Your task to perform on an android device: Clear all items from cart on costco.com. Search for acer predator on costco.com, select the first entry, add it to the cart, then select checkout. Image 0: 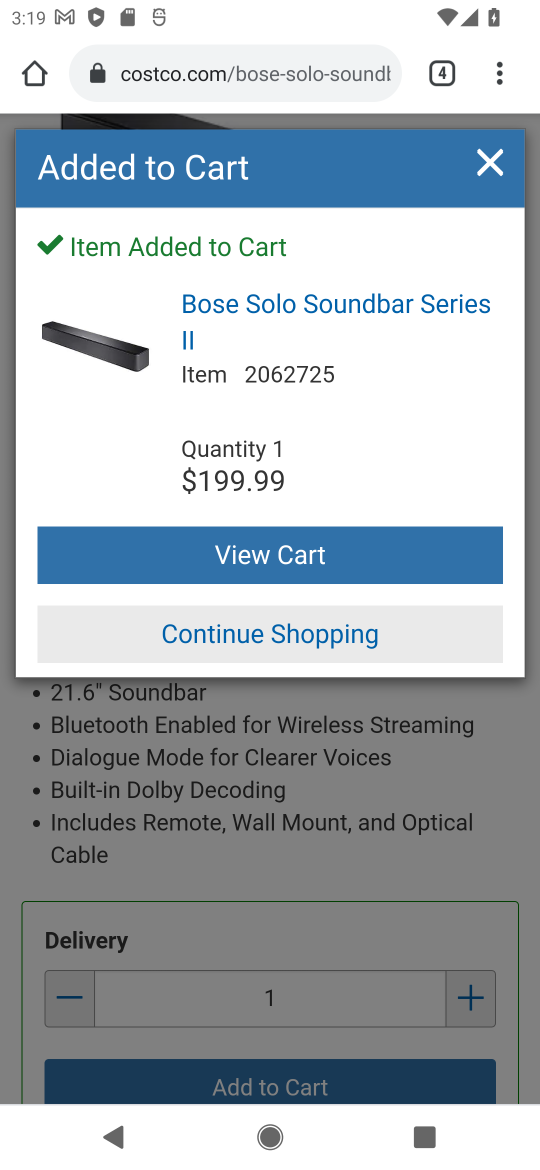
Step 0: click (205, 544)
Your task to perform on an android device: Clear all items from cart on costco.com. Search for acer predator on costco.com, select the first entry, add it to the cart, then select checkout. Image 1: 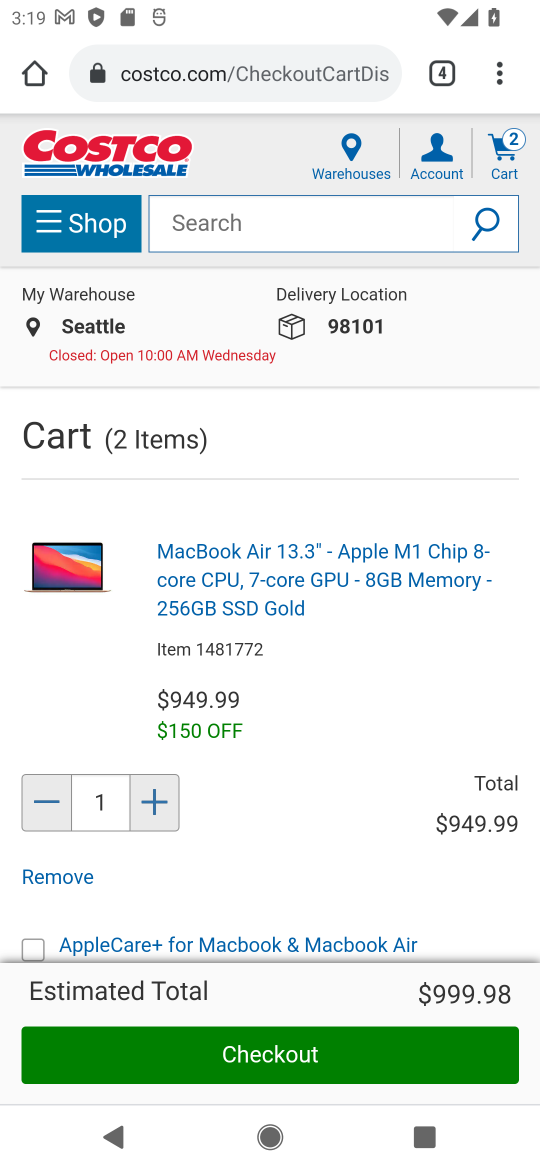
Step 1: click (81, 871)
Your task to perform on an android device: Clear all items from cart on costco.com. Search for acer predator on costco.com, select the first entry, add it to the cart, then select checkout. Image 2: 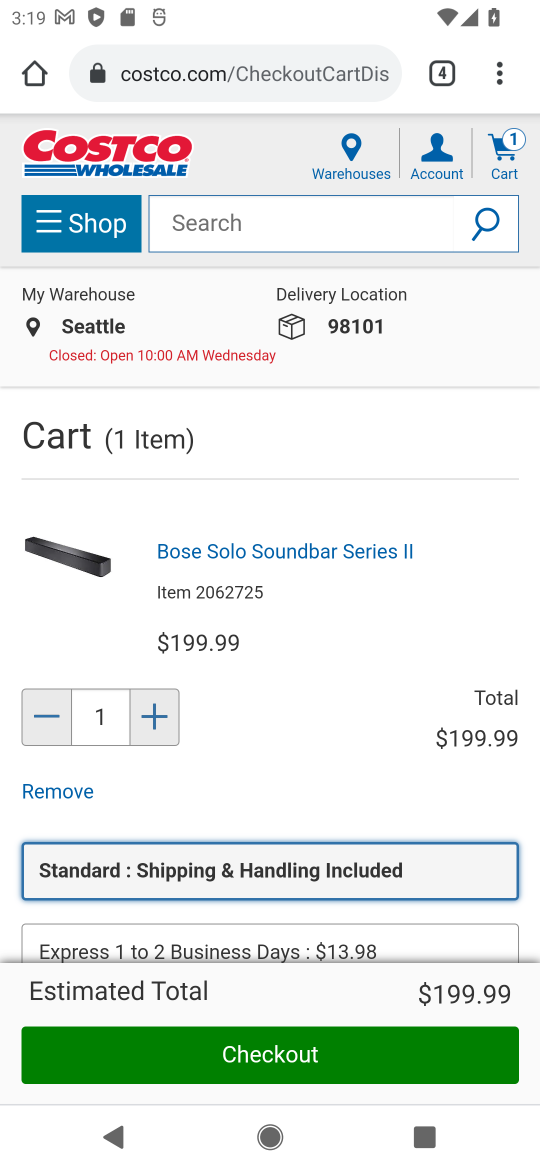
Step 2: click (69, 792)
Your task to perform on an android device: Clear all items from cart on costco.com. Search for acer predator on costco.com, select the first entry, add it to the cart, then select checkout. Image 3: 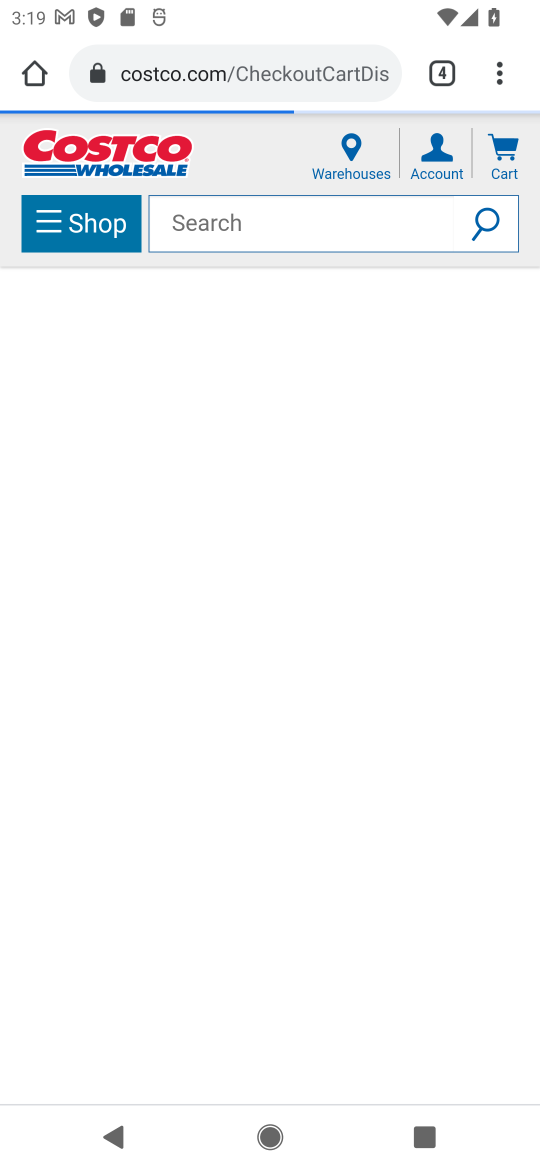
Step 3: click (69, 792)
Your task to perform on an android device: Clear all items from cart on costco.com. Search for acer predator on costco.com, select the first entry, add it to the cart, then select checkout. Image 4: 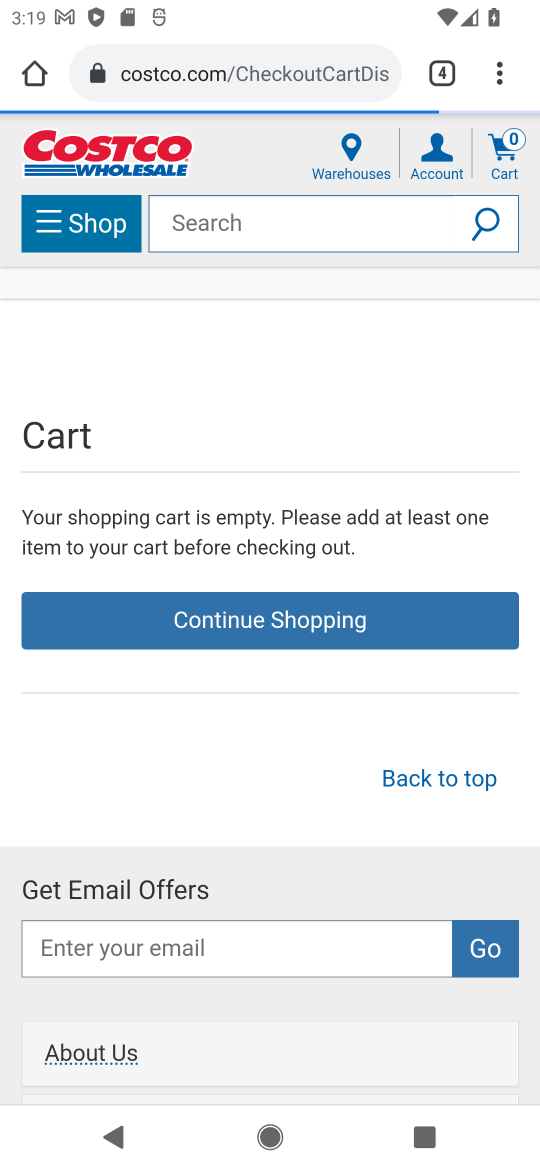
Step 4: click (69, 792)
Your task to perform on an android device: Clear all items from cart on costco.com. Search for acer predator on costco.com, select the first entry, add it to the cart, then select checkout. Image 5: 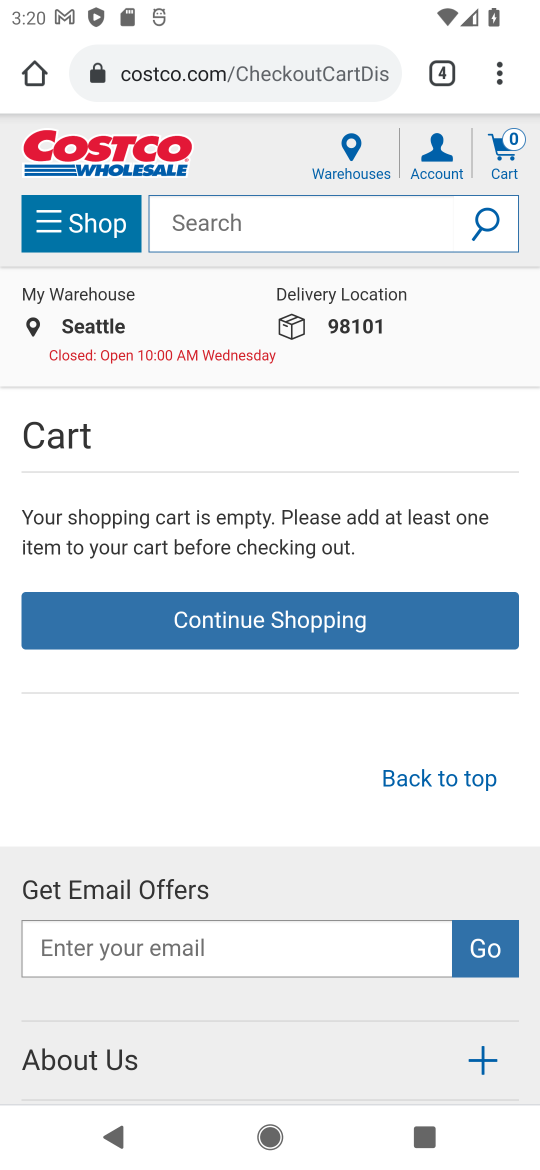
Step 5: click (259, 215)
Your task to perform on an android device: Clear all items from cart on costco.com. Search for acer predator on costco.com, select the first entry, add it to the cart, then select checkout. Image 6: 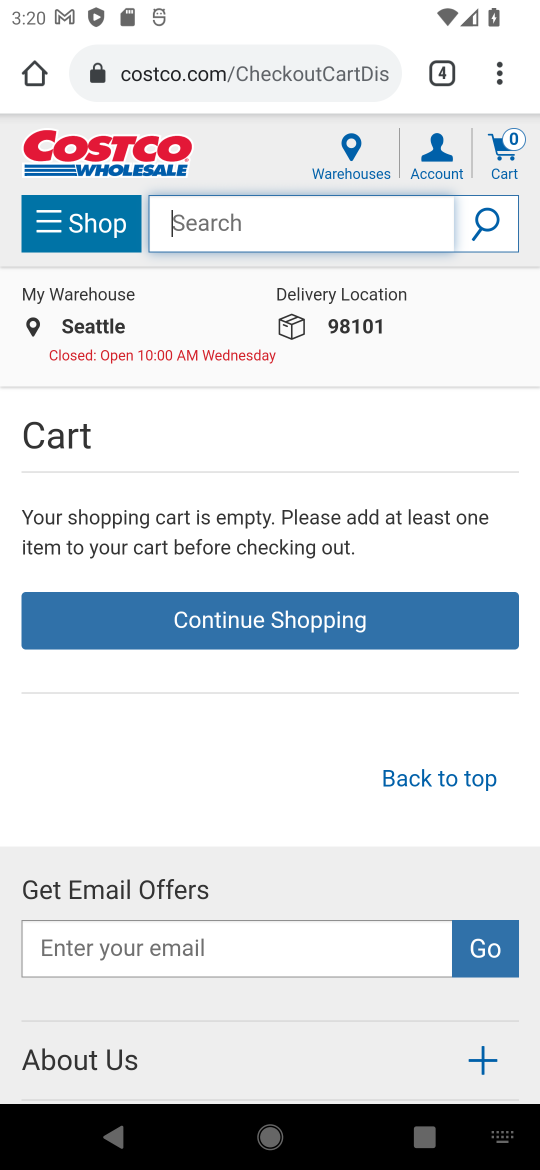
Step 6: type "acer predator "
Your task to perform on an android device: Clear all items from cart on costco.com. Search for acer predator on costco.com, select the first entry, add it to the cart, then select checkout. Image 7: 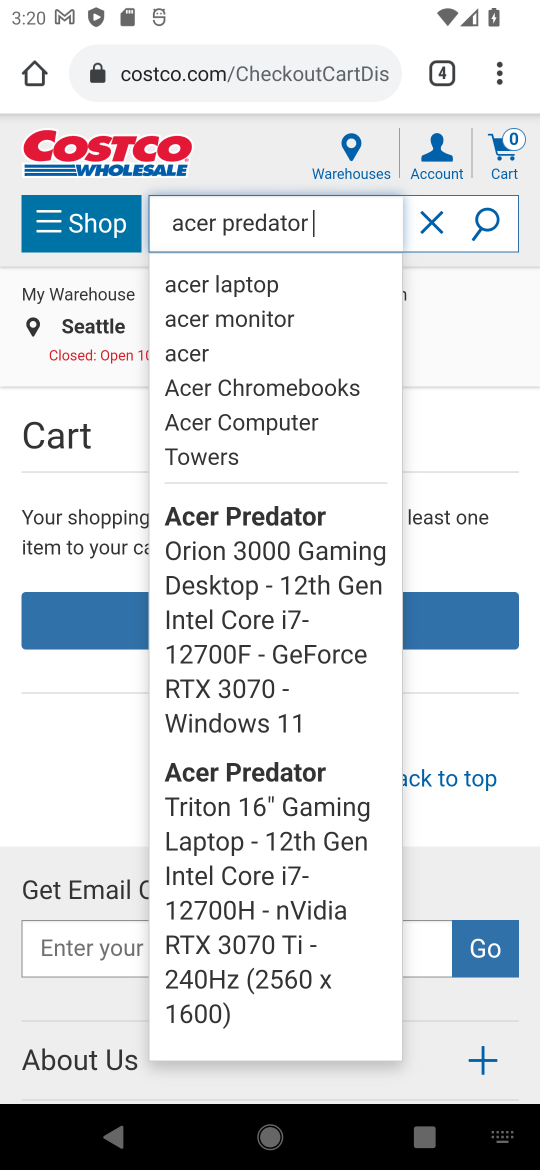
Step 7: click (258, 276)
Your task to perform on an android device: Clear all items from cart on costco.com. Search for acer predator on costco.com, select the first entry, add it to the cart, then select checkout. Image 8: 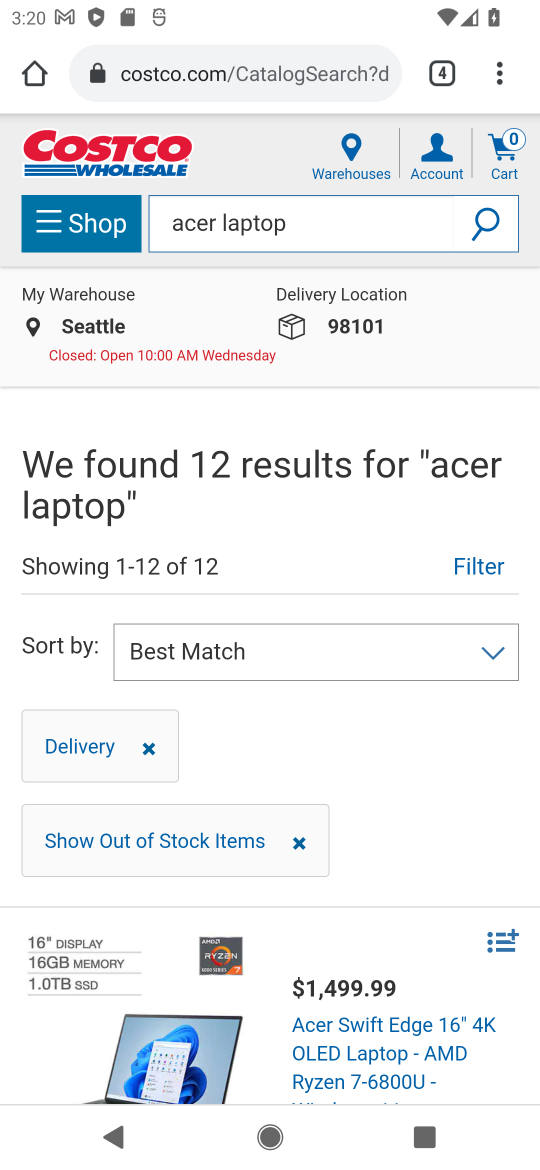
Step 8: drag from (310, 908) to (425, 94)
Your task to perform on an android device: Clear all items from cart on costco.com. Search for acer predator on costco.com, select the first entry, add it to the cart, then select checkout. Image 9: 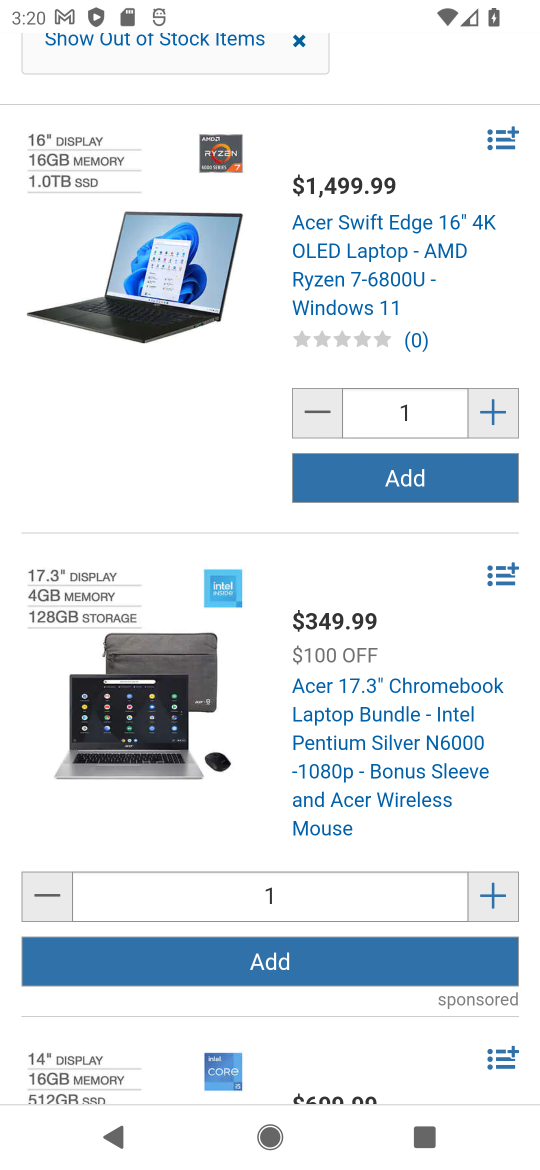
Step 9: click (381, 491)
Your task to perform on an android device: Clear all items from cart on costco.com. Search for acer predator on costco.com, select the first entry, add it to the cart, then select checkout. Image 10: 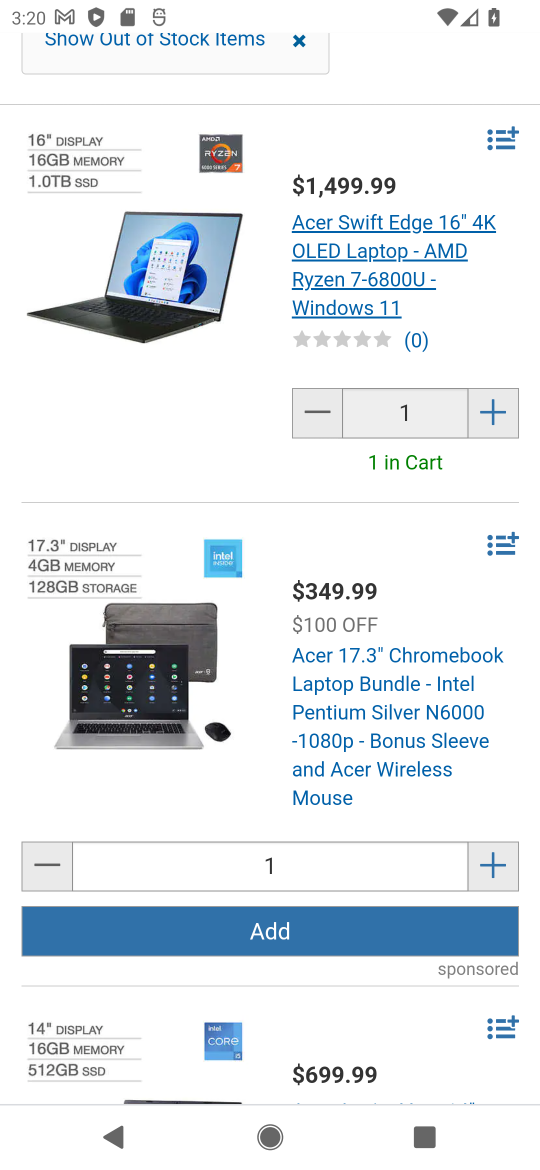
Step 10: task complete